Your task to perform on an android device: see sites visited before in the chrome app Image 0: 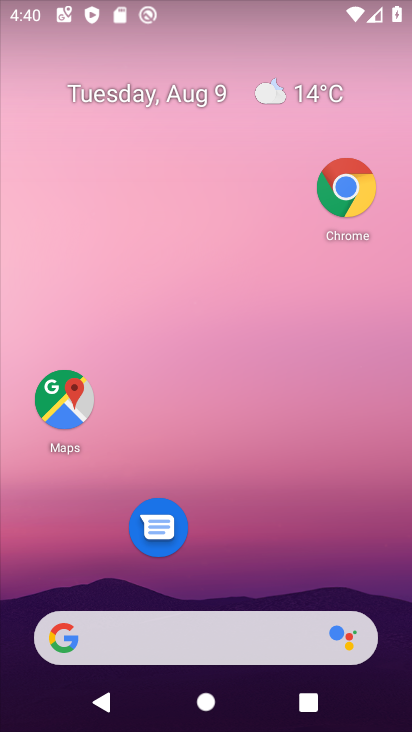
Step 0: click (338, 190)
Your task to perform on an android device: see sites visited before in the chrome app Image 1: 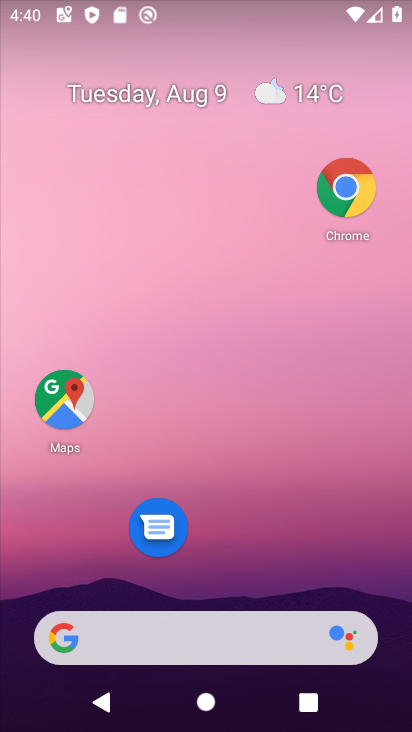
Step 1: click (338, 190)
Your task to perform on an android device: see sites visited before in the chrome app Image 2: 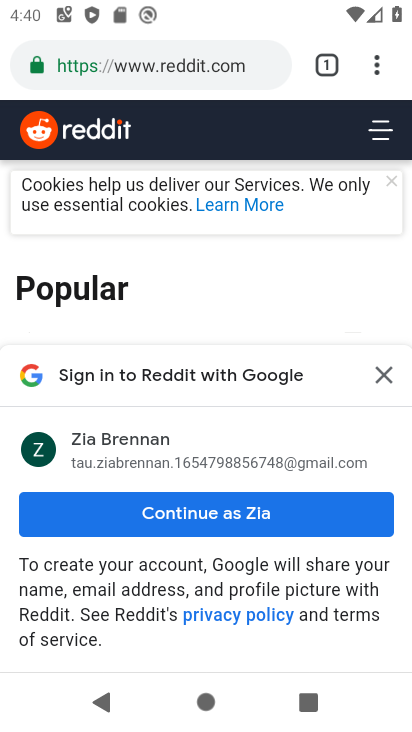
Step 2: click (395, 54)
Your task to perform on an android device: see sites visited before in the chrome app Image 3: 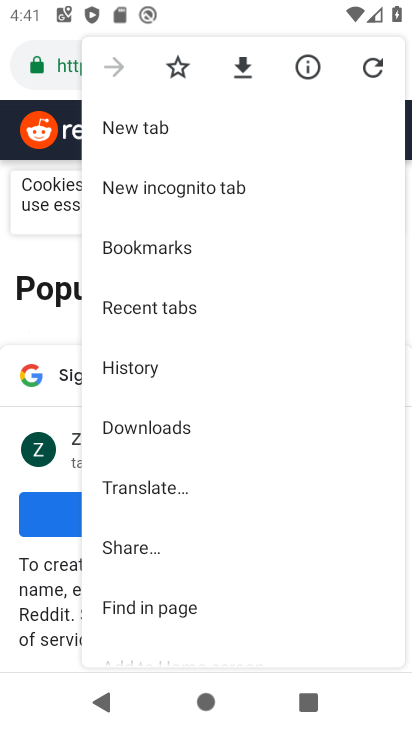
Step 3: click (224, 312)
Your task to perform on an android device: see sites visited before in the chrome app Image 4: 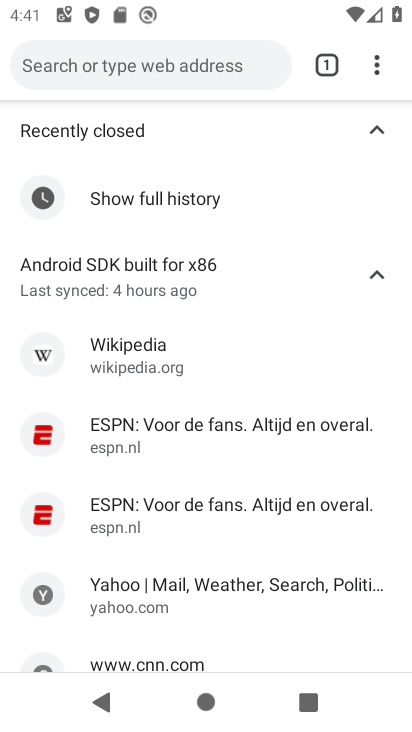
Step 4: task complete